Your task to perform on an android device: What's the news this week? Image 0: 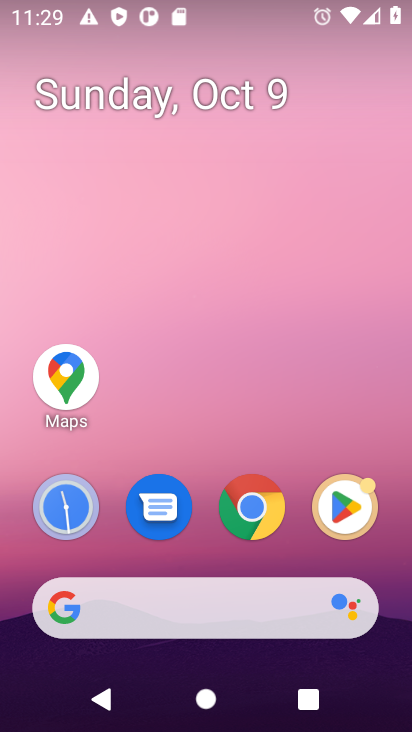
Step 0: click (265, 607)
Your task to perform on an android device: What's the news this week? Image 1: 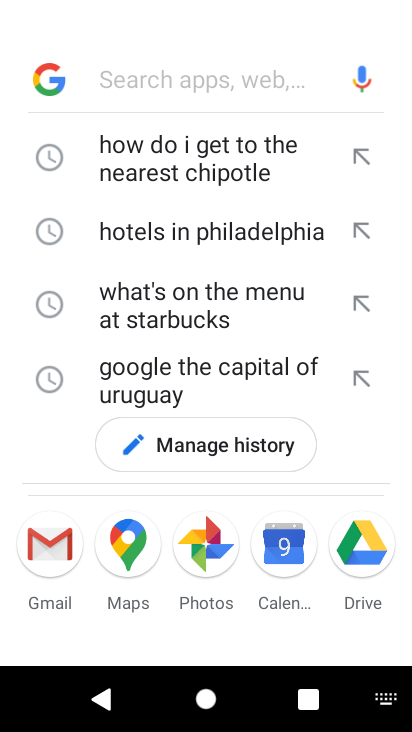
Step 1: press enter
Your task to perform on an android device: What's the news this week? Image 2: 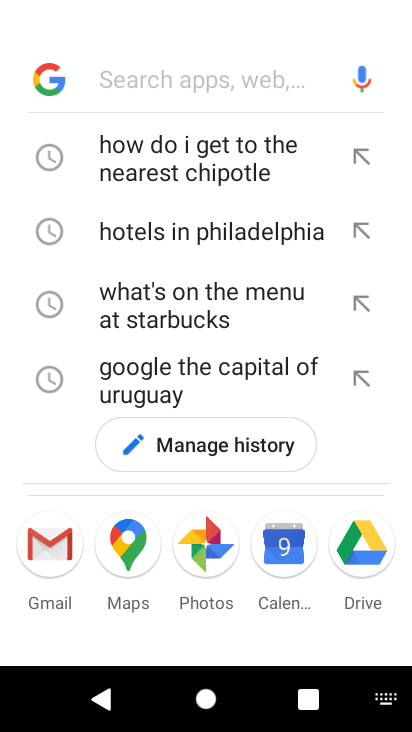
Step 2: type "What's the news this week?"
Your task to perform on an android device: What's the news this week? Image 3: 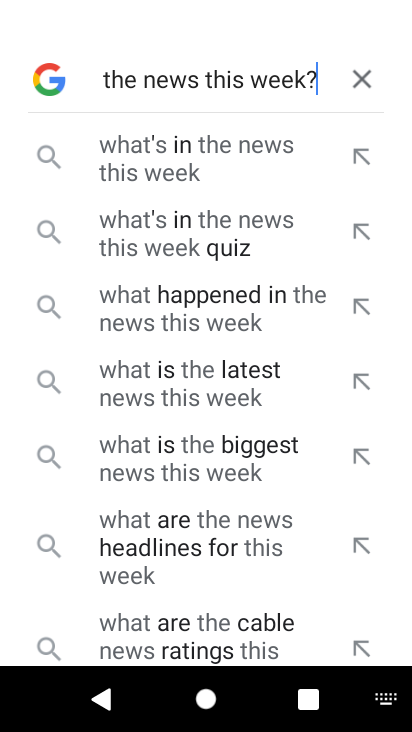
Step 3: click (210, 149)
Your task to perform on an android device: What's the news this week? Image 4: 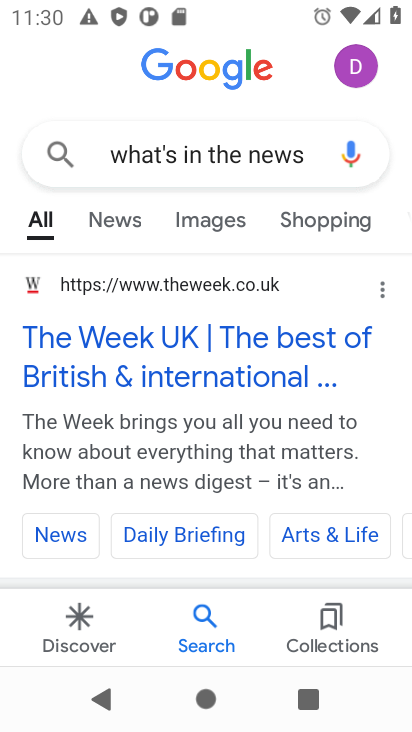
Step 4: click (164, 337)
Your task to perform on an android device: What's the news this week? Image 5: 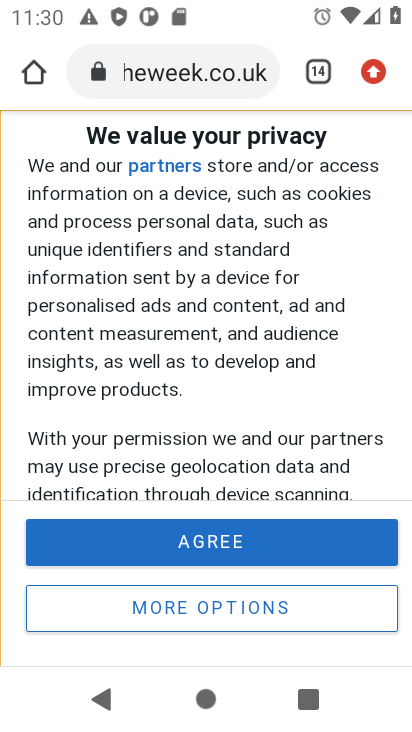
Step 5: click (217, 532)
Your task to perform on an android device: What's the news this week? Image 6: 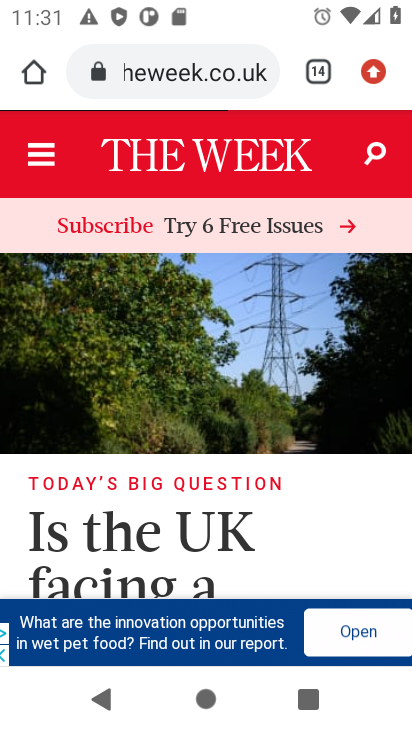
Step 6: task complete